Your task to perform on an android device: turn on improve location accuracy Image 0: 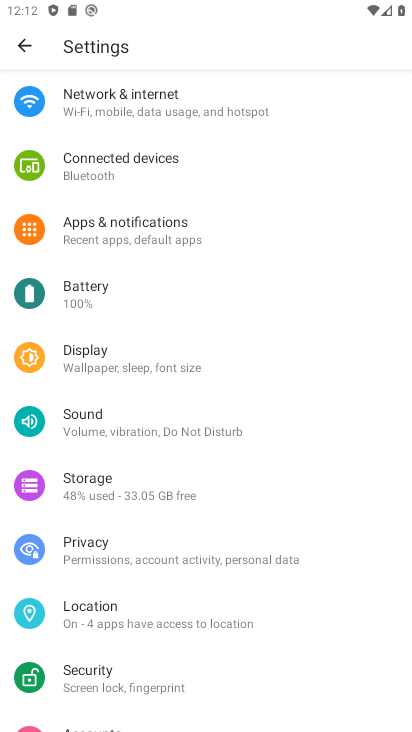
Step 0: click (111, 619)
Your task to perform on an android device: turn on improve location accuracy Image 1: 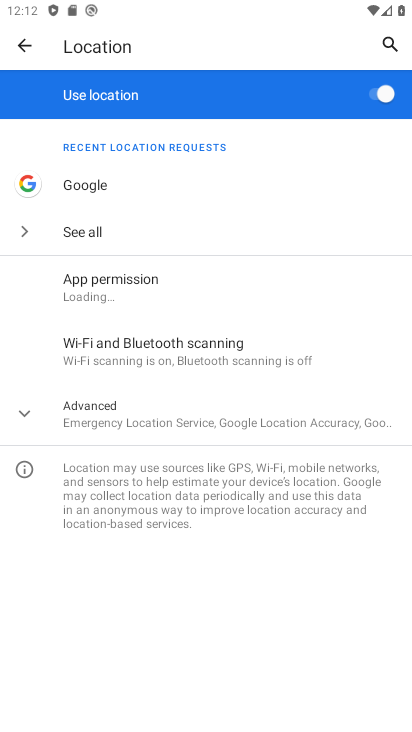
Step 1: click (108, 413)
Your task to perform on an android device: turn on improve location accuracy Image 2: 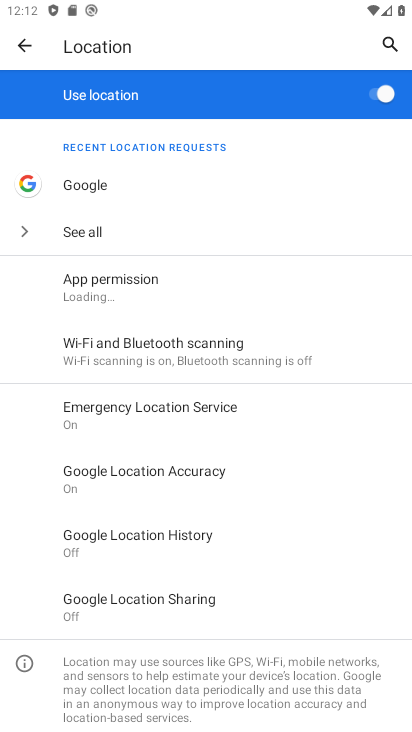
Step 2: click (144, 476)
Your task to perform on an android device: turn on improve location accuracy Image 3: 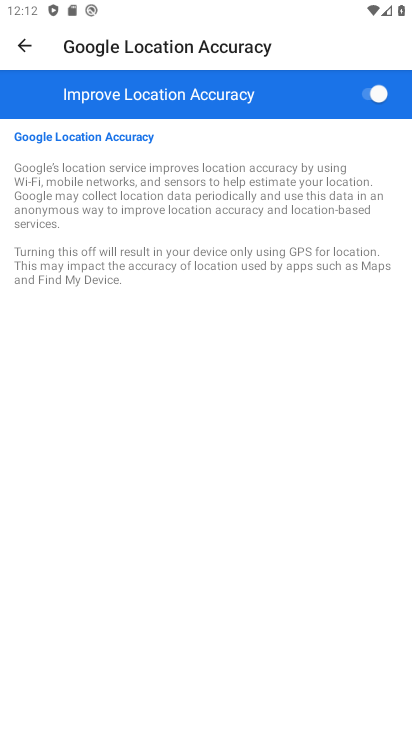
Step 3: task complete